Your task to perform on an android device: See recent photos Image 0: 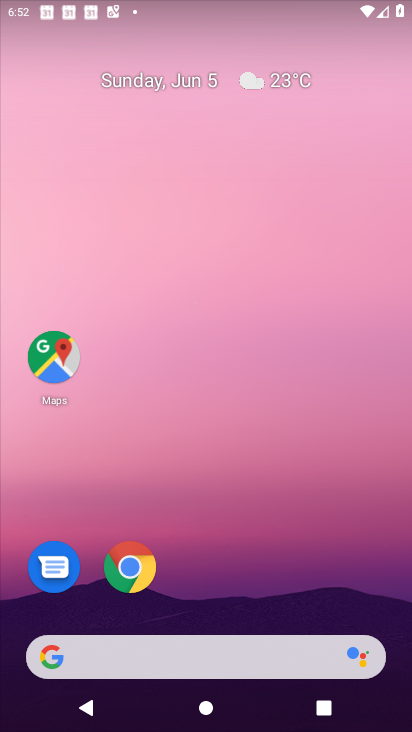
Step 0: drag from (393, 633) to (267, 23)
Your task to perform on an android device: See recent photos Image 1: 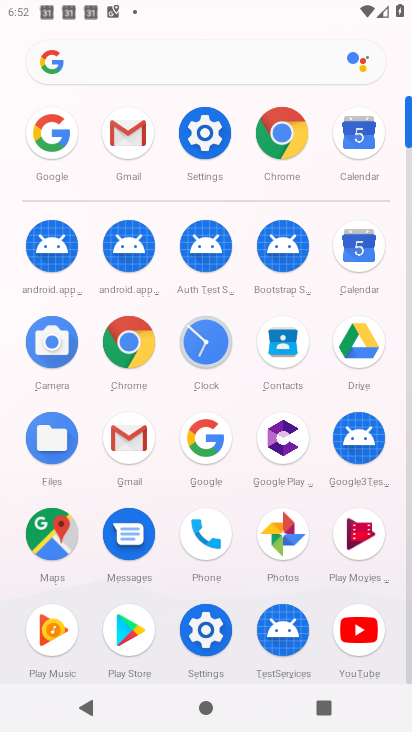
Step 1: click (289, 557)
Your task to perform on an android device: See recent photos Image 2: 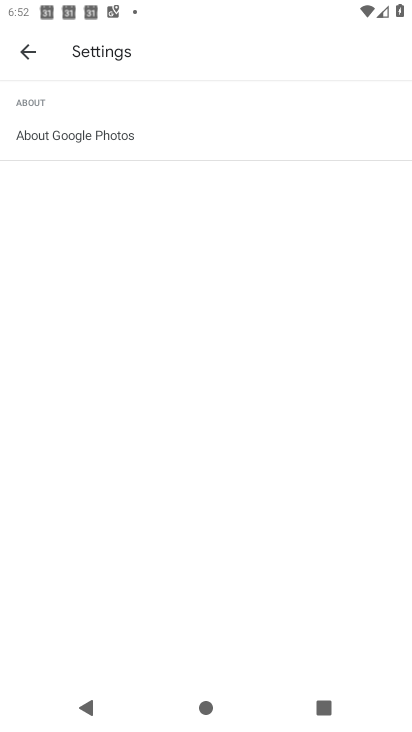
Step 2: press back button
Your task to perform on an android device: See recent photos Image 3: 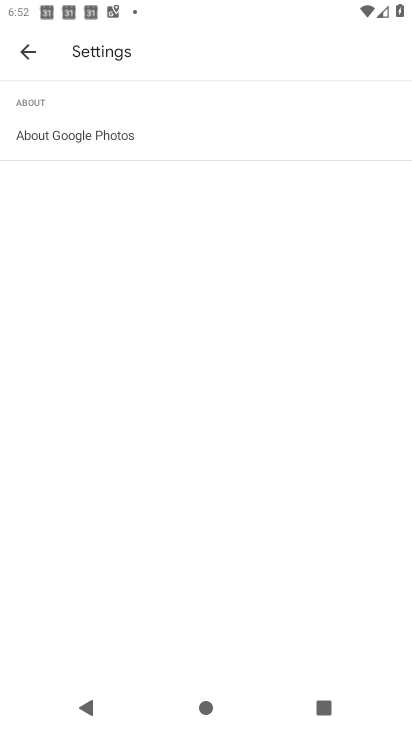
Step 3: press back button
Your task to perform on an android device: See recent photos Image 4: 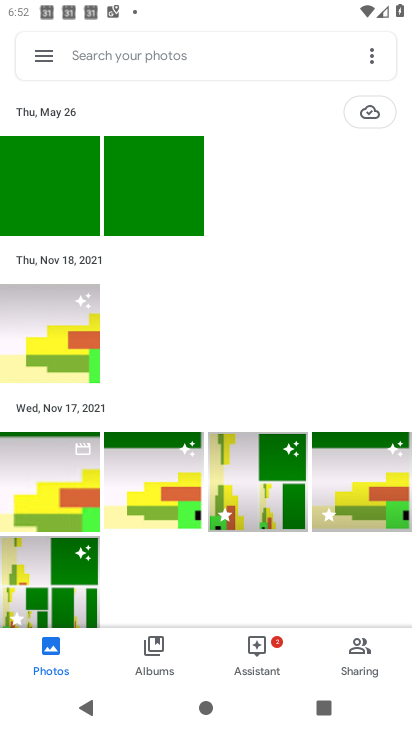
Step 4: click (18, 248)
Your task to perform on an android device: See recent photos Image 5: 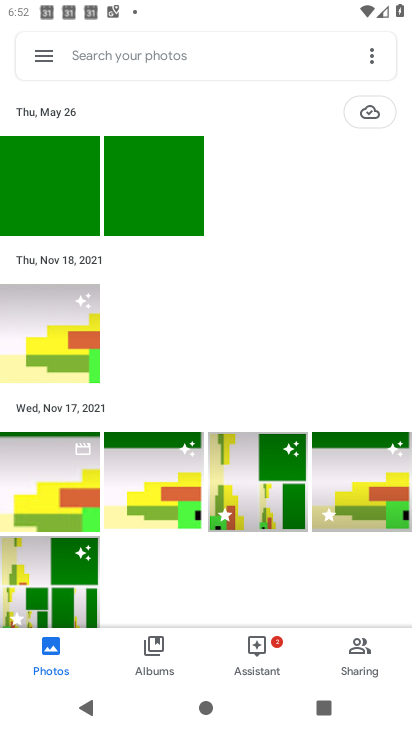
Step 5: click (33, 193)
Your task to perform on an android device: See recent photos Image 6: 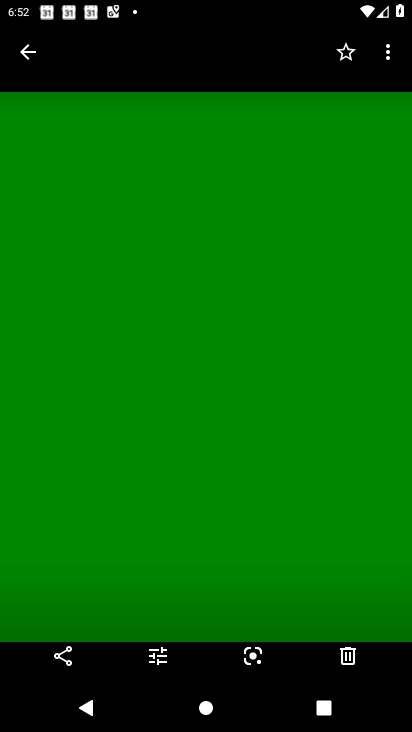
Step 6: task complete